Your task to perform on an android device: clear history in the chrome app Image 0: 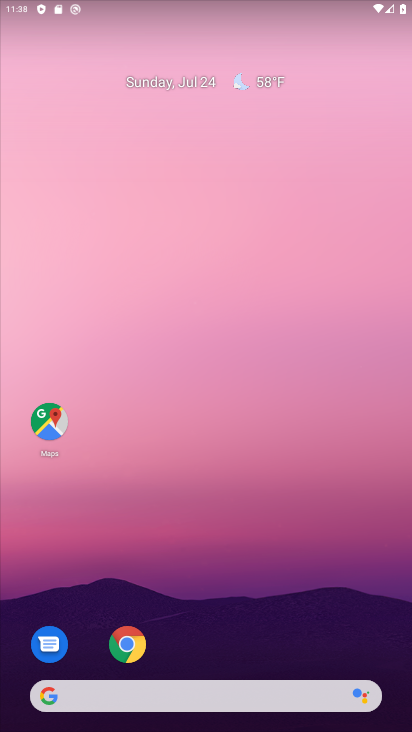
Step 0: click (129, 652)
Your task to perform on an android device: clear history in the chrome app Image 1: 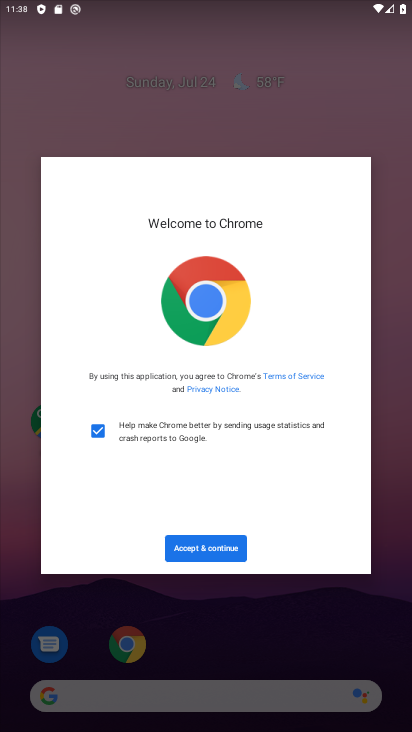
Step 1: click (214, 551)
Your task to perform on an android device: clear history in the chrome app Image 2: 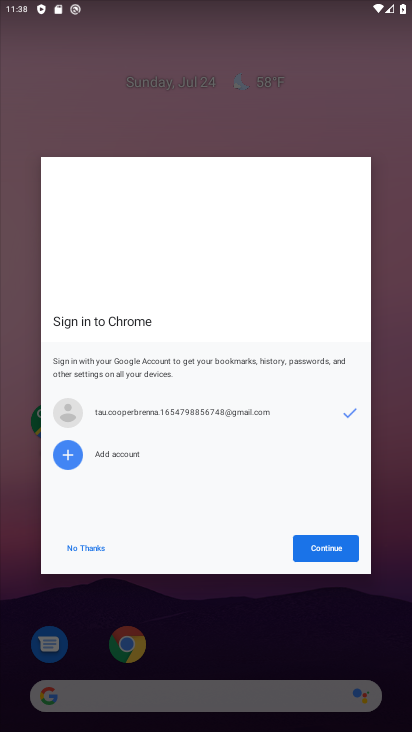
Step 2: click (312, 538)
Your task to perform on an android device: clear history in the chrome app Image 3: 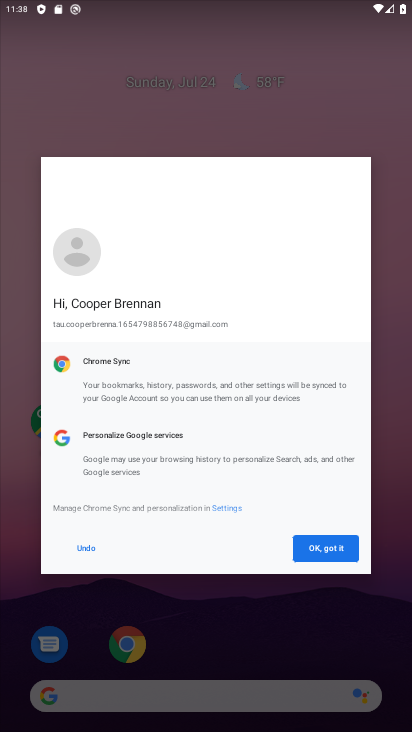
Step 3: click (312, 538)
Your task to perform on an android device: clear history in the chrome app Image 4: 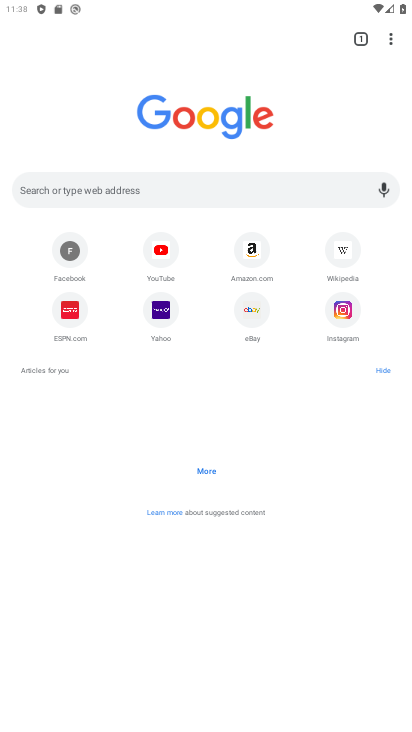
Step 4: click (395, 37)
Your task to perform on an android device: clear history in the chrome app Image 5: 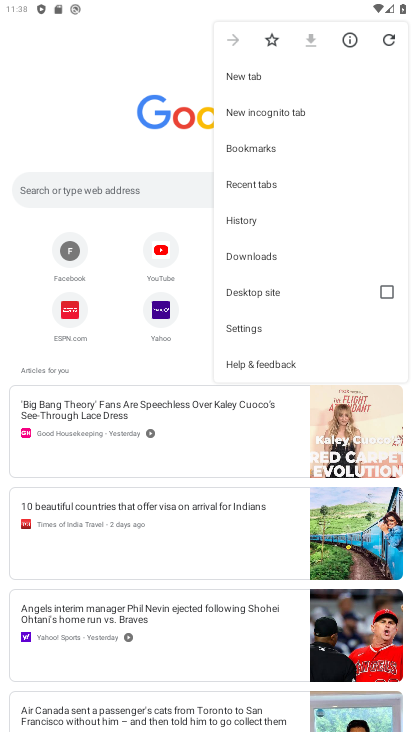
Step 5: click (295, 223)
Your task to perform on an android device: clear history in the chrome app Image 6: 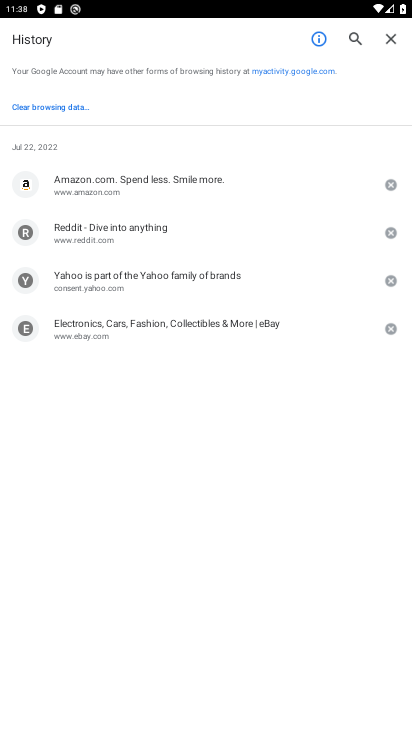
Step 6: click (71, 109)
Your task to perform on an android device: clear history in the chrome app Image 7: 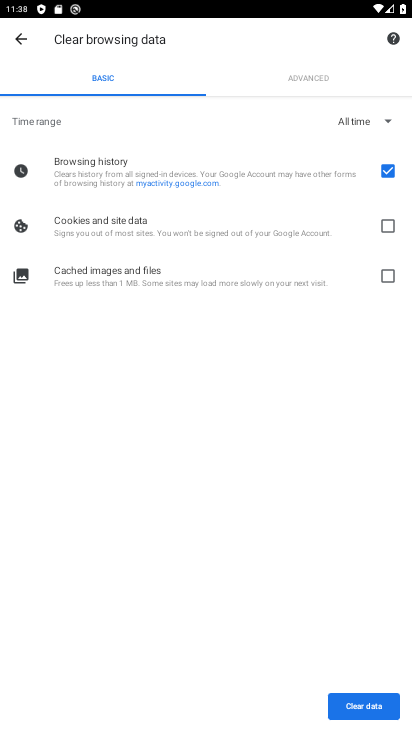
Step 7: click (384, 279)
Your task to perform on an android device: clear history in the chrome app Image 8: 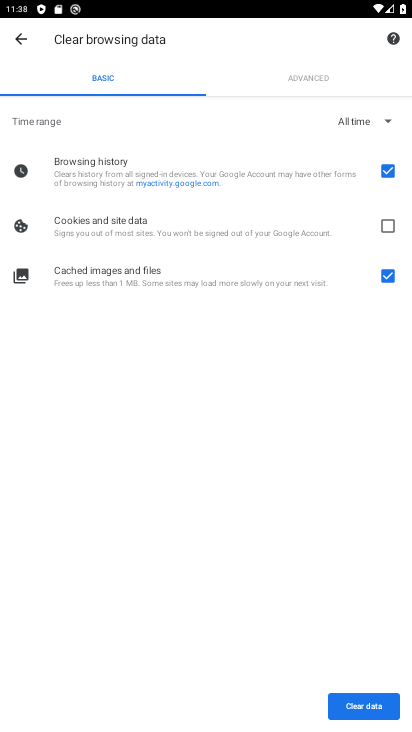
Step 8: click (386, 242)
Your task to perform on an android device: clear history in the chrome app Image 9: 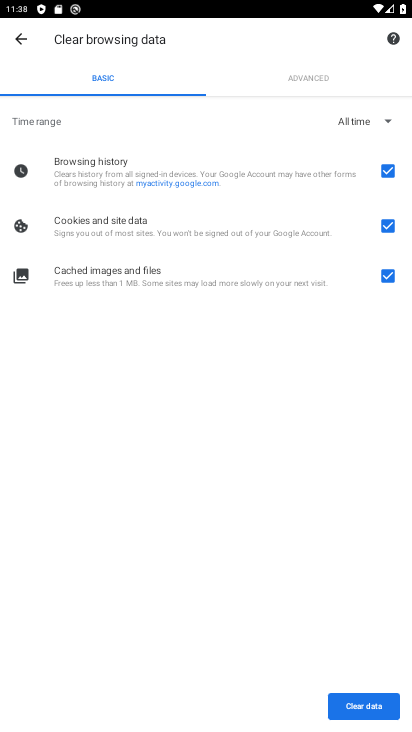
Step 9: click (360, 698)
Your task to perform on an android device: clear history in the chrome app Image 10: 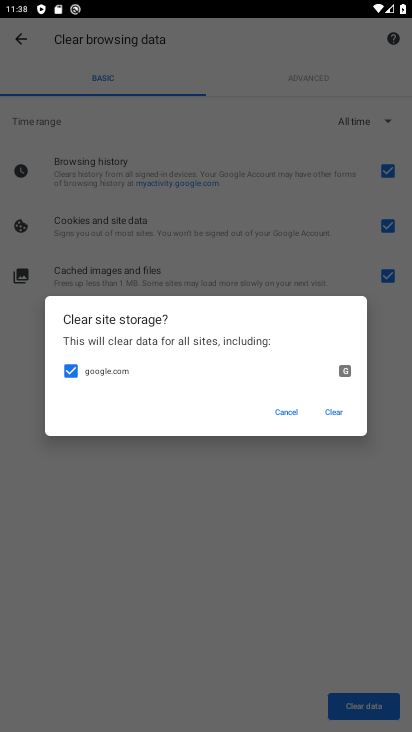
Step 10: click (332, 420)
Your task to perform on an android device: clear history in the chrome app Image 11: 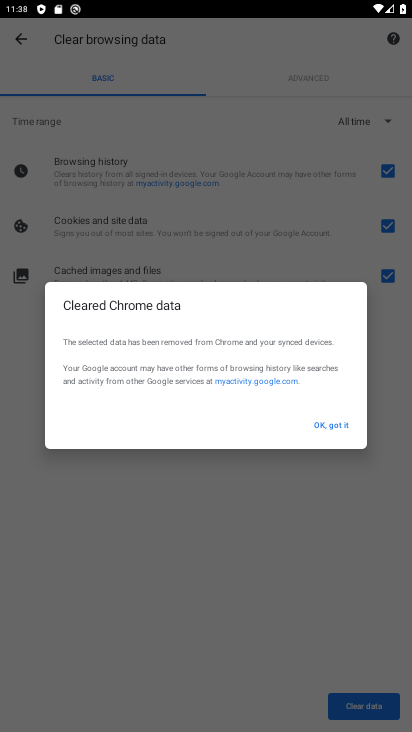
Step 11: click (323, 438)
Your task to perform on an android device: clear history in the chrome app Image 12: 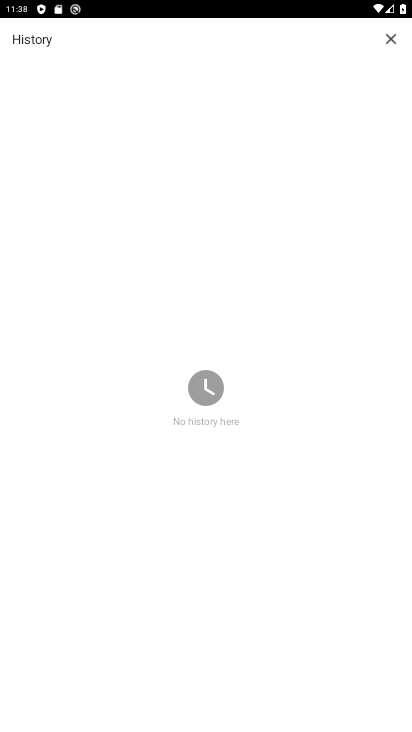
Step 12: task complete